Your task to perform on an android device: toggle wifi Image 0: 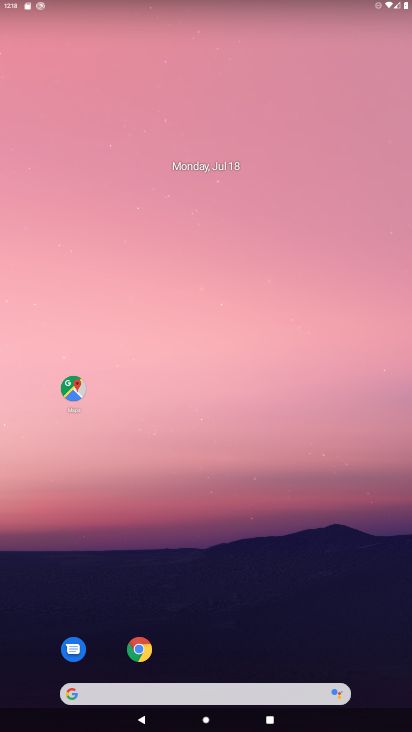
Step 0: drag from (108, 5) to (17, 507)
Your task to perform on an android device: toggle wifi Image 1: 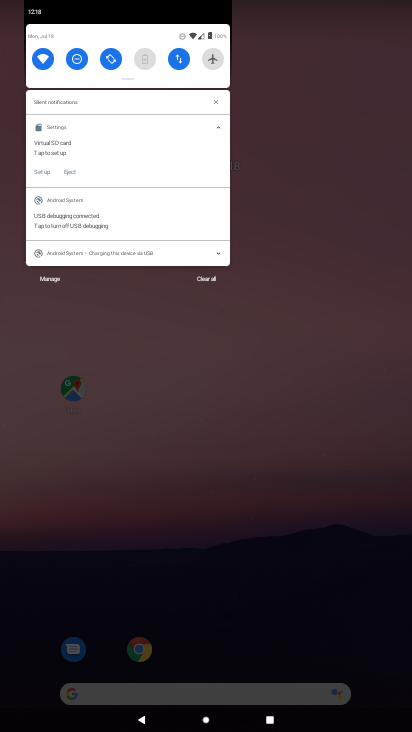
Step 1: click (45, 69)
Your task to perform on an android device: toggle wifi Image 2: 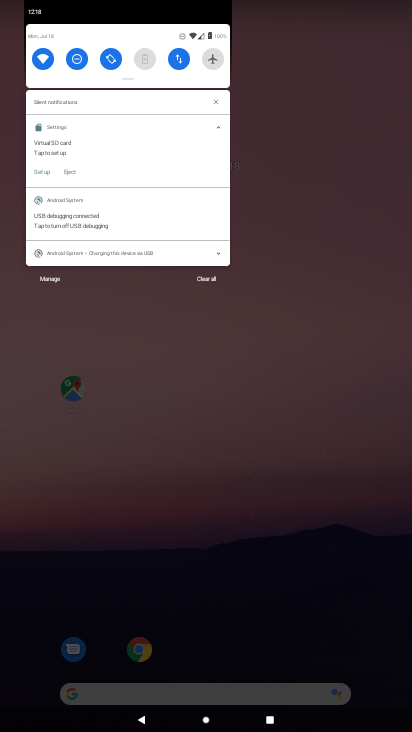
Step 2: click (45, 69)
Your task to perform on an android device: toggle wifi Image 3: 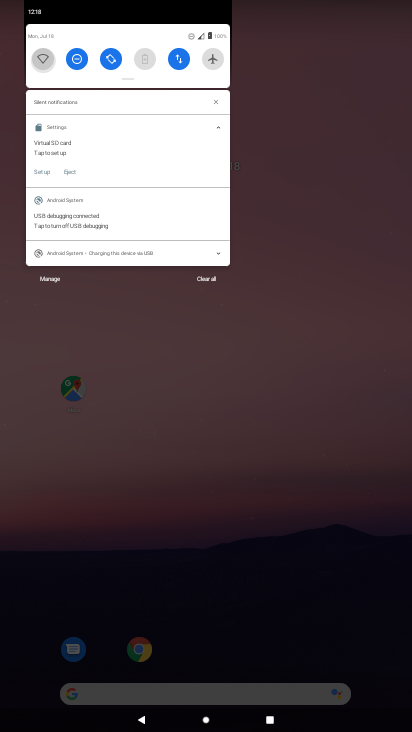
Step 3: click (45, 69)
Your task to perform on an android device: toggle wifi Image 4: 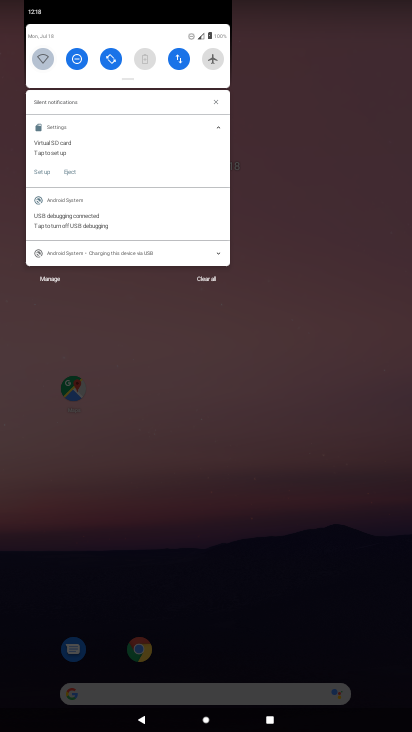
Step 4: click (45, 69)
Your task to perform on an android device: toggle wifi Image 5: 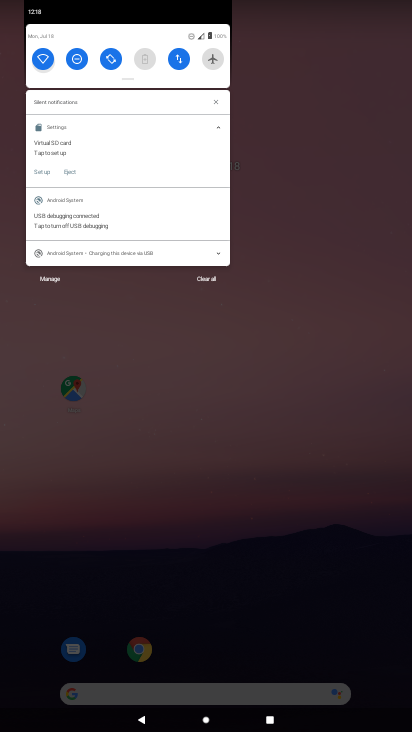
Step 5: click (45, 69)
Your task to perform on an android device: toggle wifi Image 6: 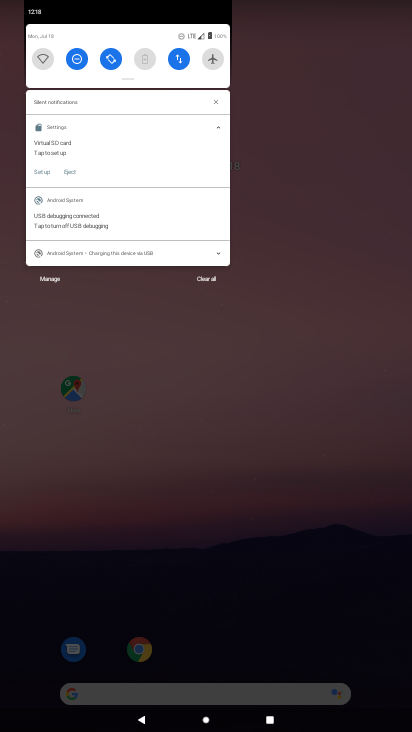
Step 6: click (45, 69)
Your task to perform on an android device: toggle wifi Image 7: 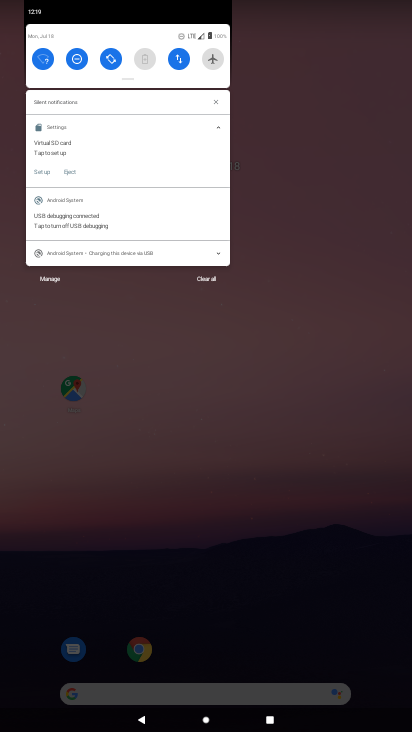
Step 7: task complete